Your task to perform on an android device: set the timer Image 0: 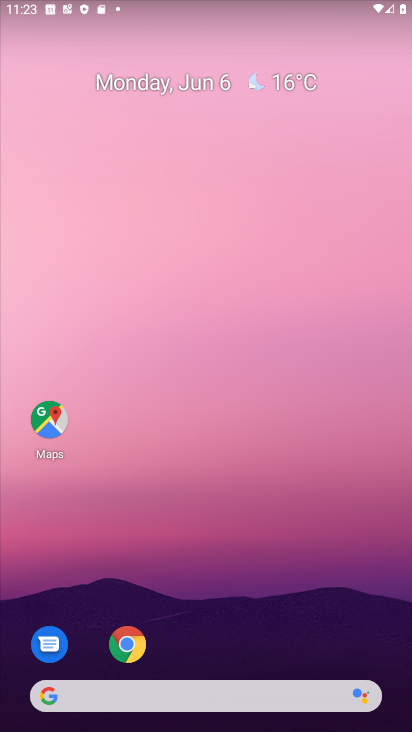
Step 0: drag from (240, 609) to (287, 135)
Your task to perform on an android device: set the timer Image 1: 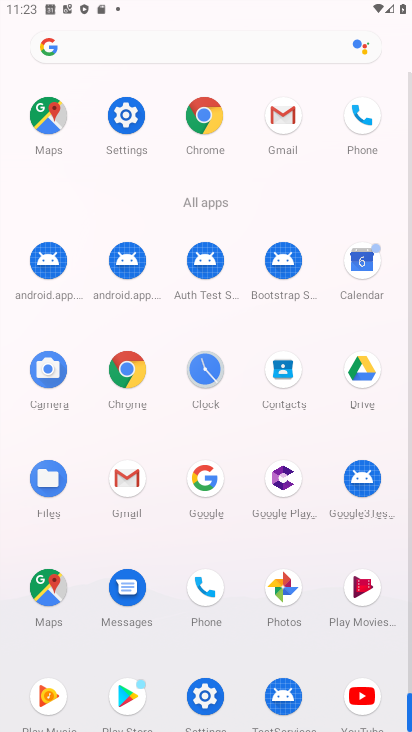
Step 1: click (204, 381)
Your task to perform on an android device: set the timer Image 2: 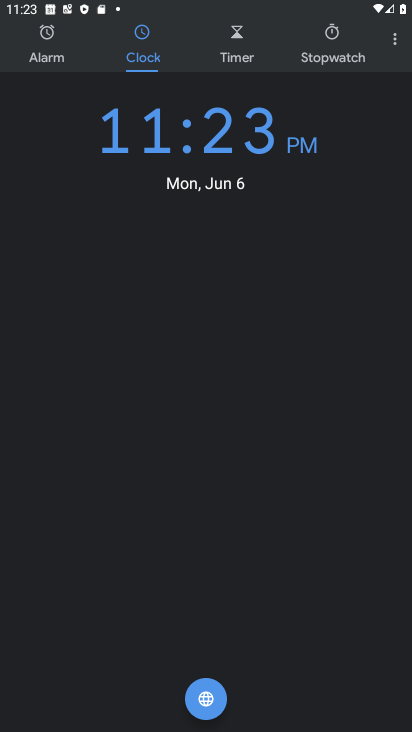
Step 2: click (241, 62)
Your task to perform on an android device: set the timer Image 3: 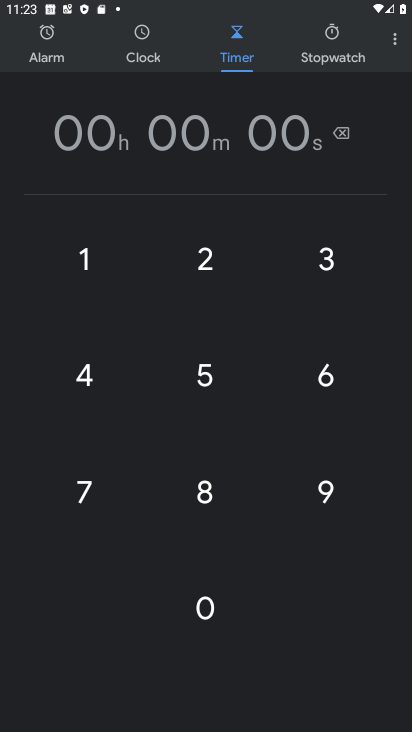
Step 3: click (204, 378)
Your task to perform on an android device: set the timer Image 4: 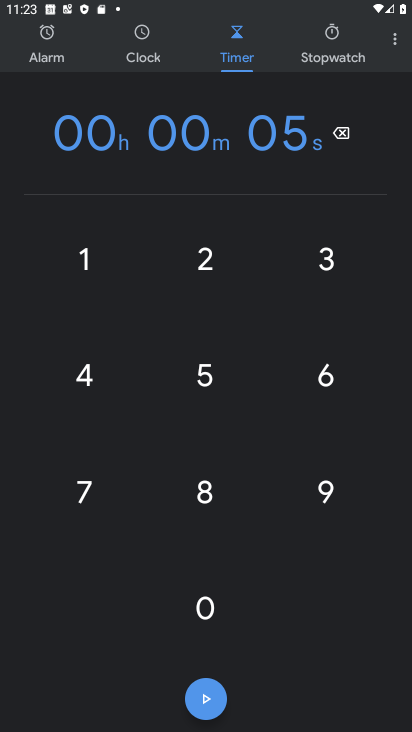
Step 4: click (325, 397)
Your task to perform on an android device: set the timer Image 5: 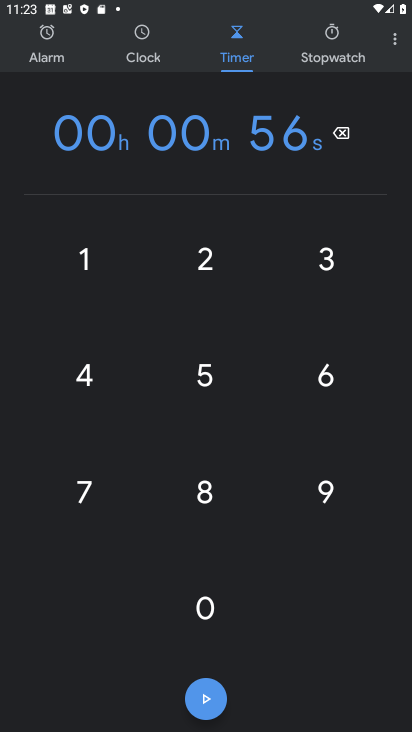
Step 5: click (318, 272)
Your task to perform on an android device: set the timer Image 6: 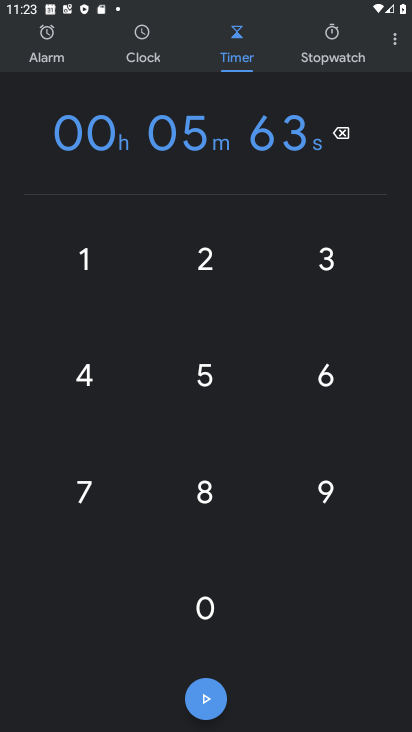
Step 6: click (214, 698)
Your task to perform on an android device: set the timer Image 7: 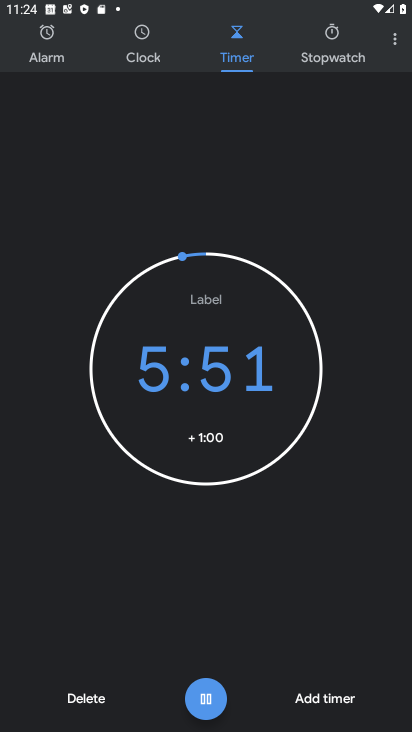
Step 7: task complete